Your task to perform on an android device: change text size in settings app Image 0: 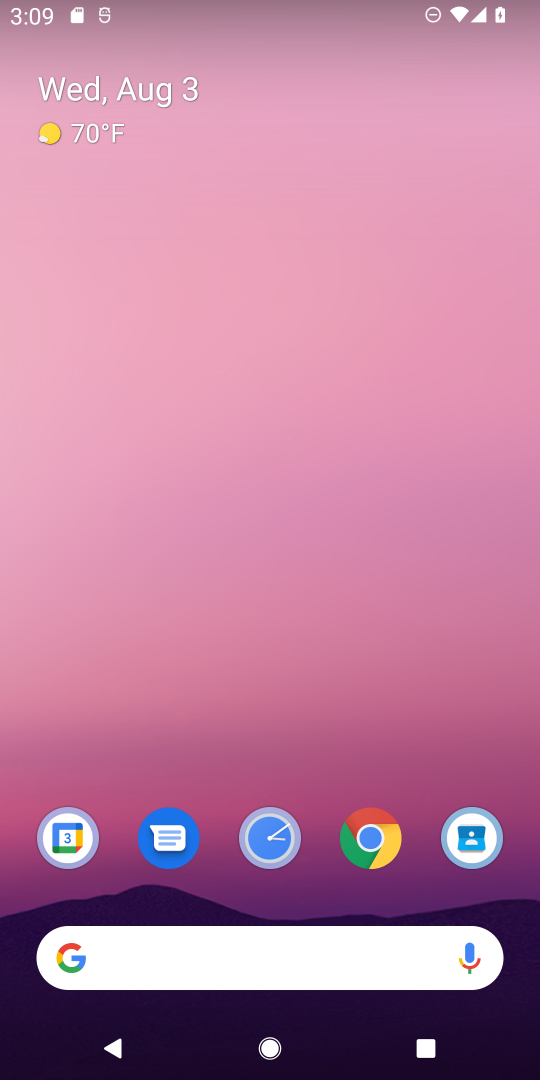
Step 0: drag from (182, 906) to (219, 429)
Your task to perform on an android device: change text size in settings app Image 1: 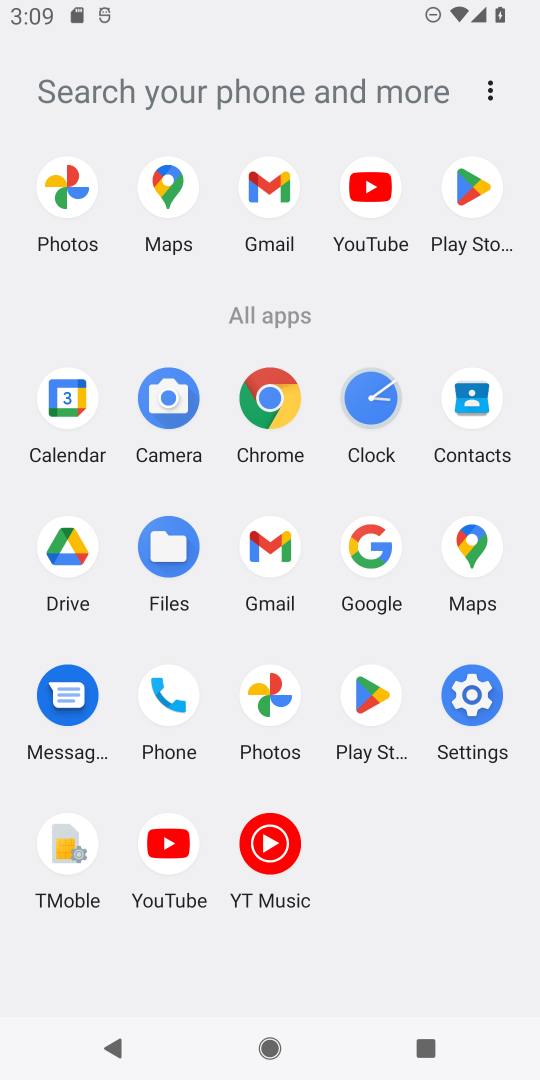
Step 1: click (478, 697)
Your task to perform on an android device: change text size in settings app Image 2: 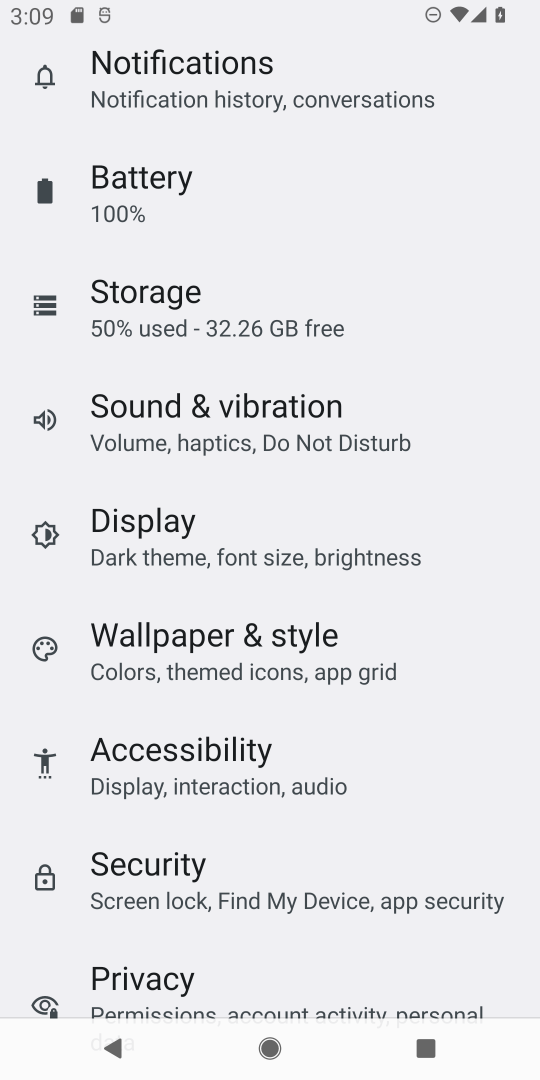
Step 2: click (244, 524)
Your task to perform on an android device: change text size in settings app Image 3: 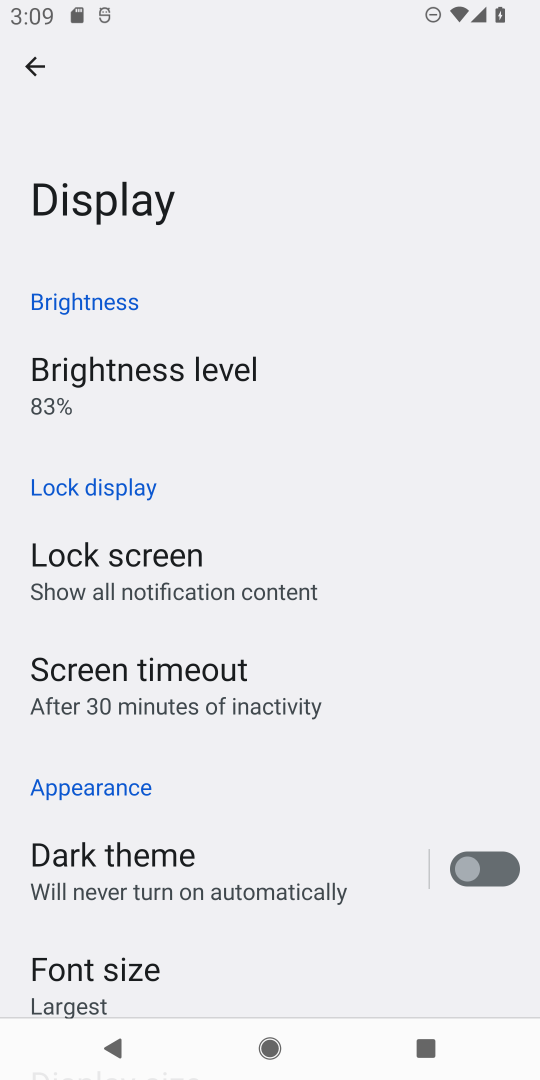
Step 3: click (128, 962)
Your task to perform on an android device: change text size in settings app Image 4: 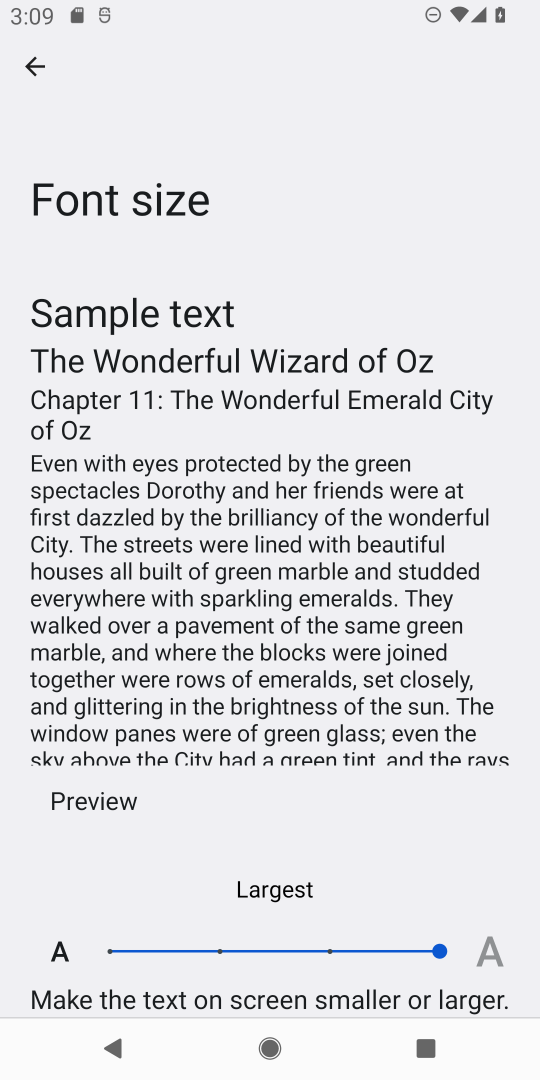
Step 4: click (328, 951)
Your task to perform on an android device: change text size in settings app Image 5: 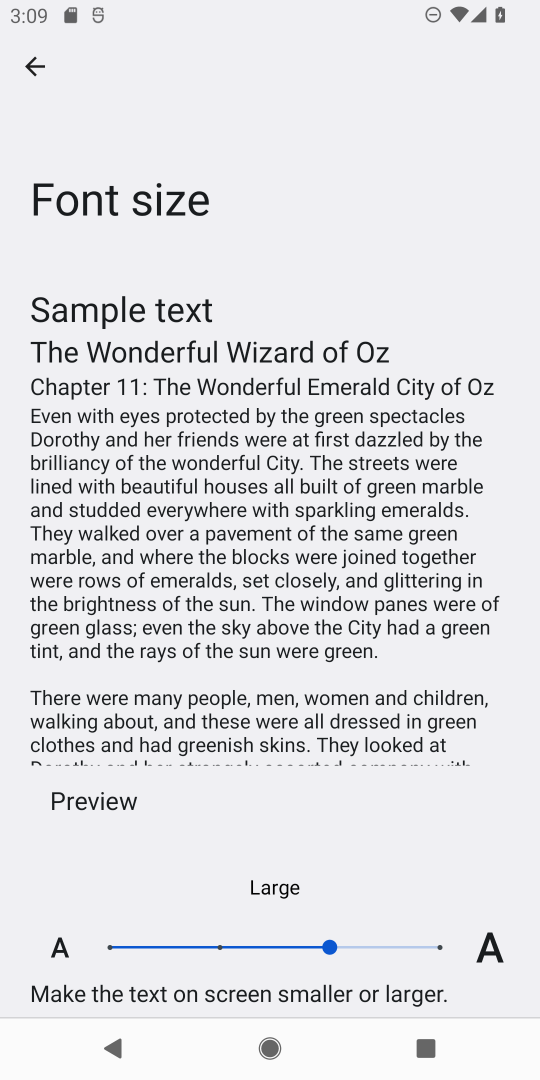
Step 5: task complete